Your task to perform on an android device: Open Chrome and go to the settings page Image 0: 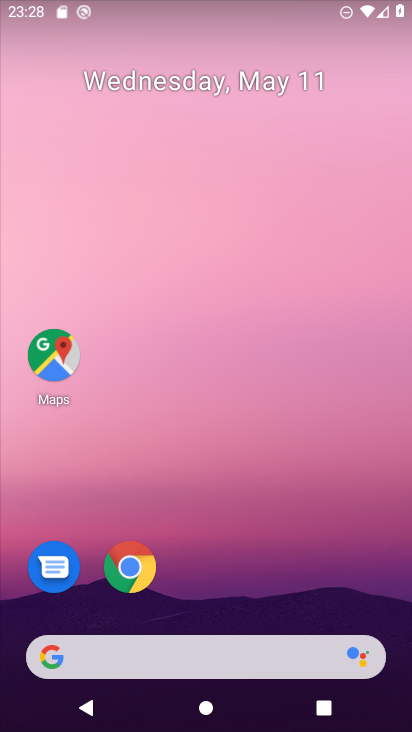
Step 0: click (145, 568)
Your task to perform on an android device: Open Chrome and go to the settings page Image 1: 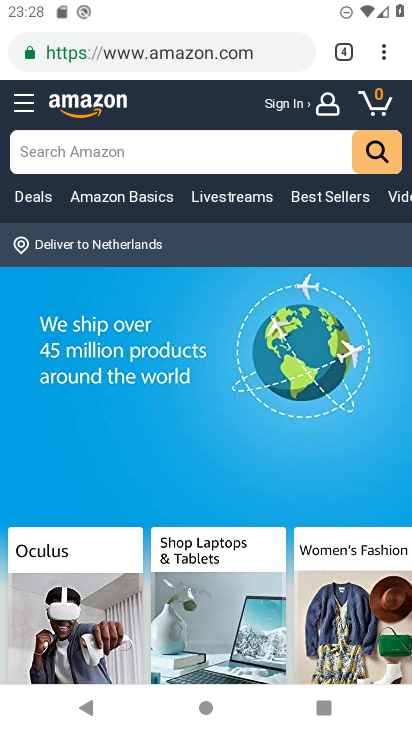
Step 1: click (385, 38)
Your task to perform on an android device: Open Chrome and go to the settings page Image 2: 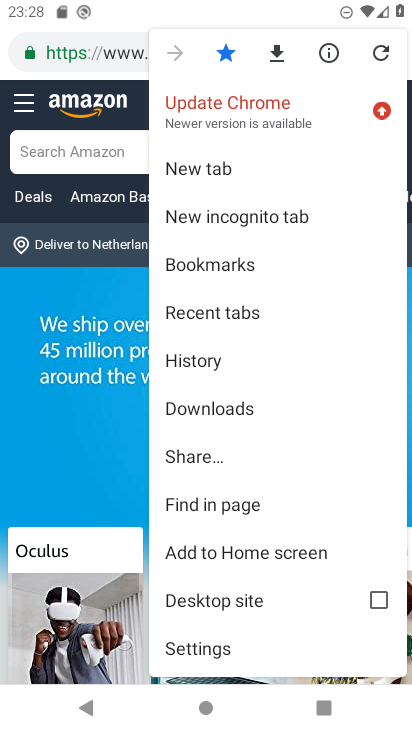
Step 2: click (223, 653)
Your task to perform on an android device: Open Chrome and go to the settings page Image 3: 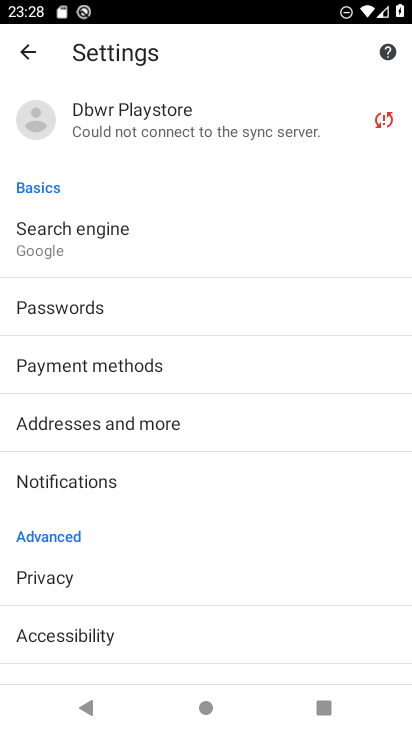
Step 3: task complete